Your task to perform on an android device: turn off sleep mode Image 0: 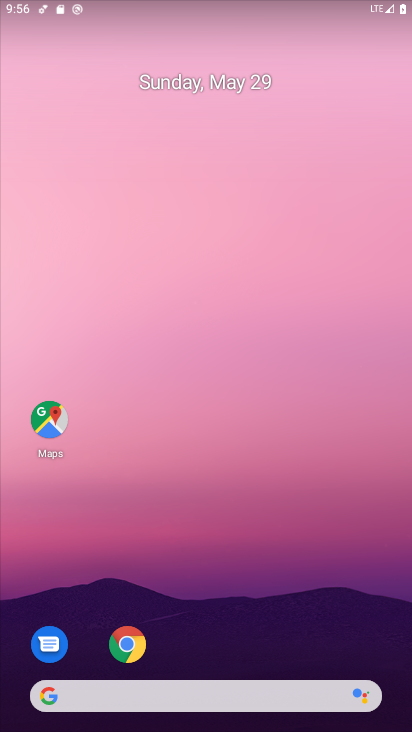
Step 0: drag from (170, 8) to (214, 679)
Your task to perform on an android device: turn off sleep mode Image 1: 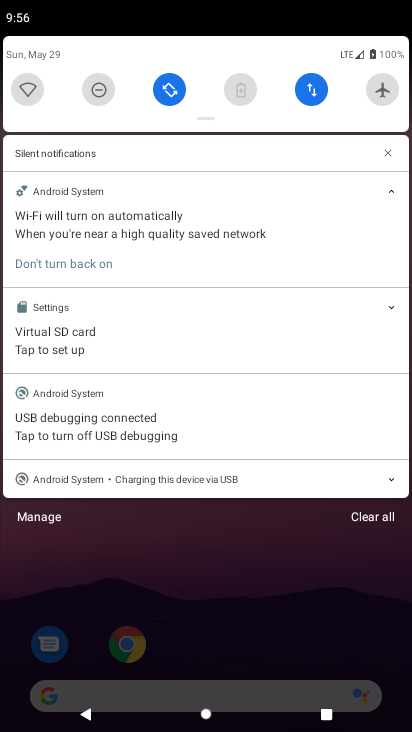
Step 1: drag from (199, 121) to (204, 689)
Your task to perform on an android device: turn off sleep mode Image 2: 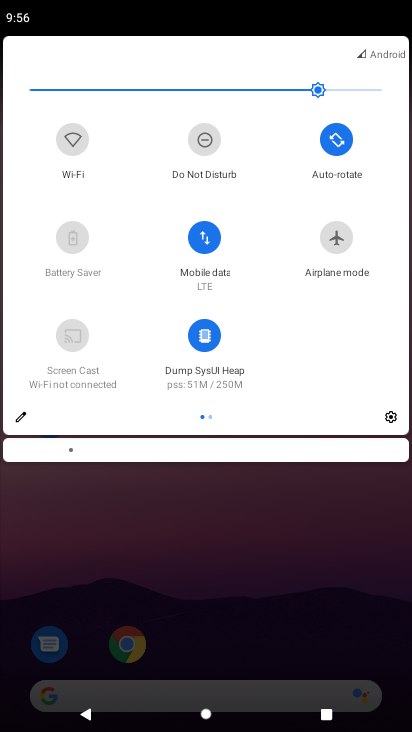
Step 2: click (17, 413)
Your task to perform on an android device: turn off sleep mode Image 3: 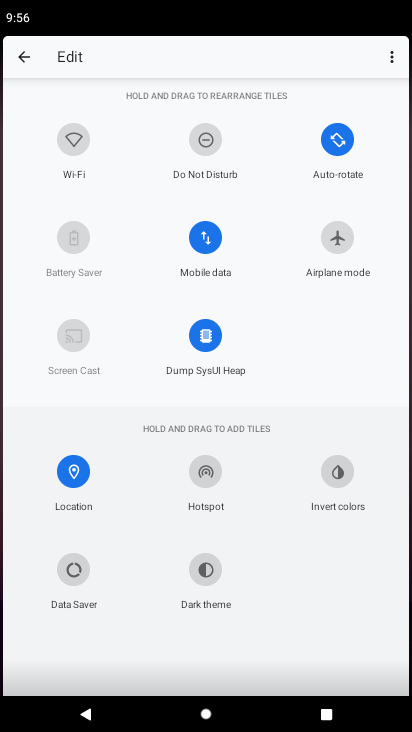
Step 3: task complete